Your task to perform on an android device: When is my next appointment? Image 0: 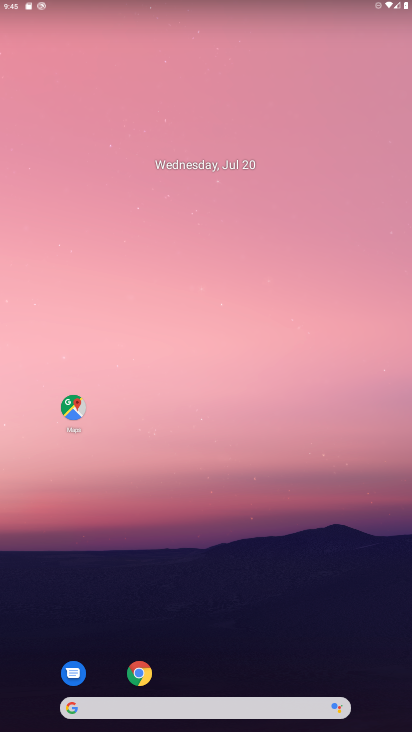
Step 0: drag from (184, 679) to (209, 72)
Your task to perform on an android device: When is my next appointment? Image 1: 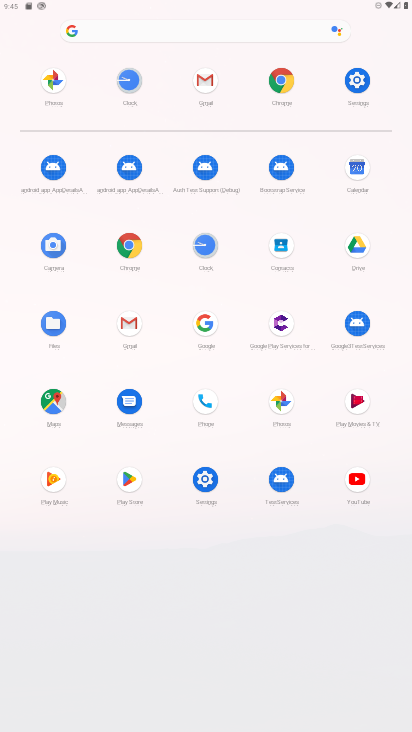
Step 1: click (358, 166)
Your task to perform on an android device: When is my next appointment? Image 2: 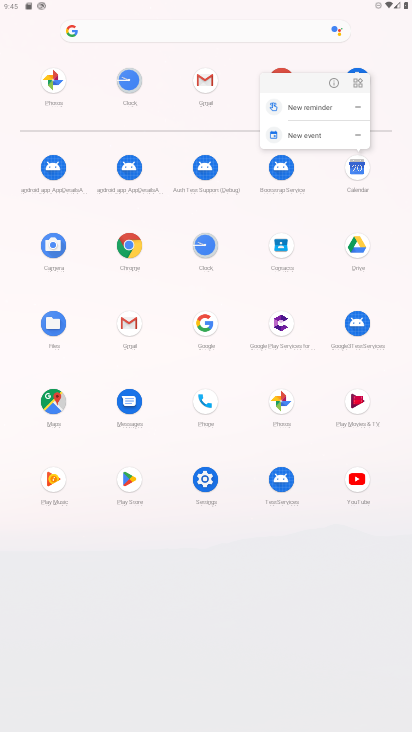
Step 2: click (331, 83)
Your task to perform on an android device: When is my next appointment? Image 3: 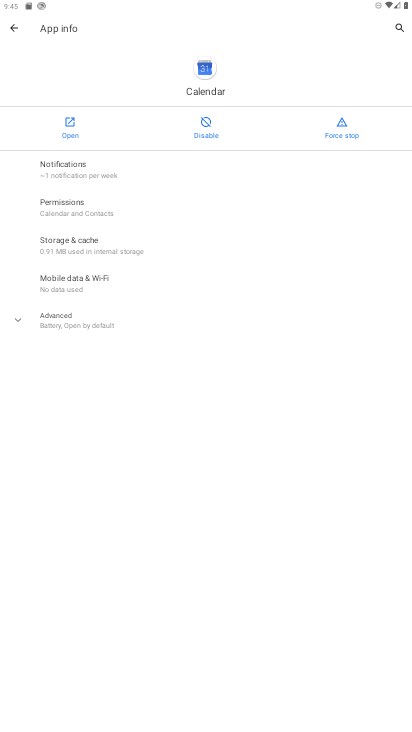
Step 3: click (65, 116)
Your task to perform on an android device: When is my next appointment? Image 4: 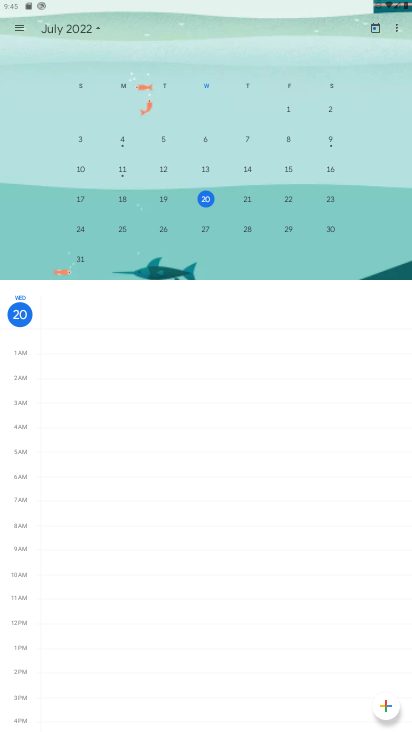
Step 4: click (204, 194)
Your task to perform on an android device: When is my next appointment? Image 5: 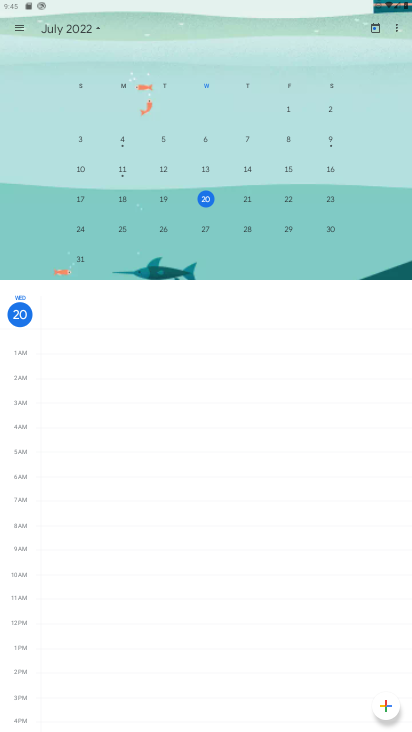
Step 5: task complete